Your task to perform on an android device: turn vacation reply on in the gmail app Image 0: 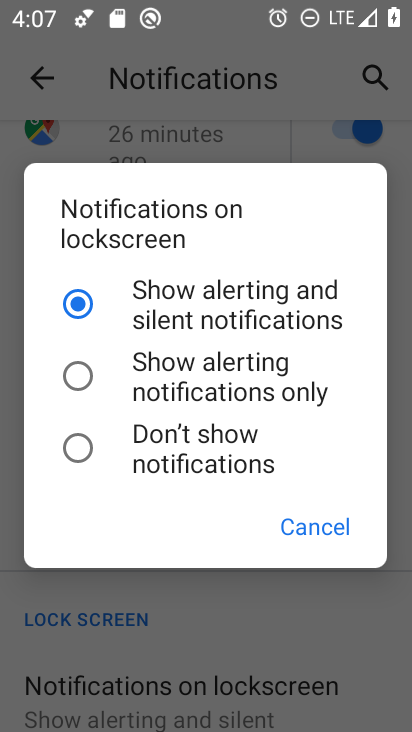
Step 0: press back button
Your task to perform on an android device: turn vacation reply on in the gmail app Image 1: 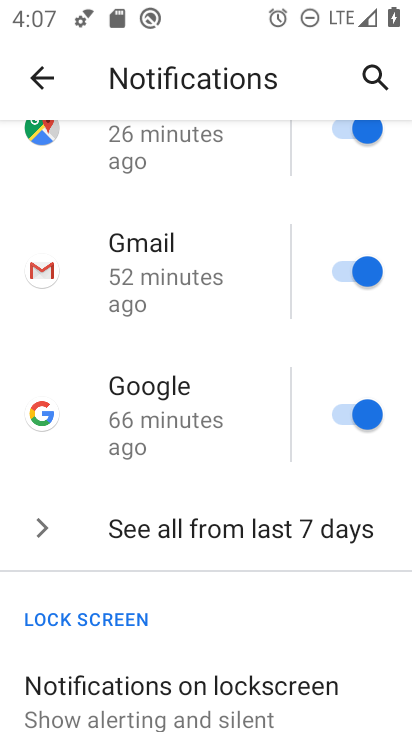
Step 1: press back button
Your task to perform on an android device: turn vacation reply on in the gmail app Image 2: 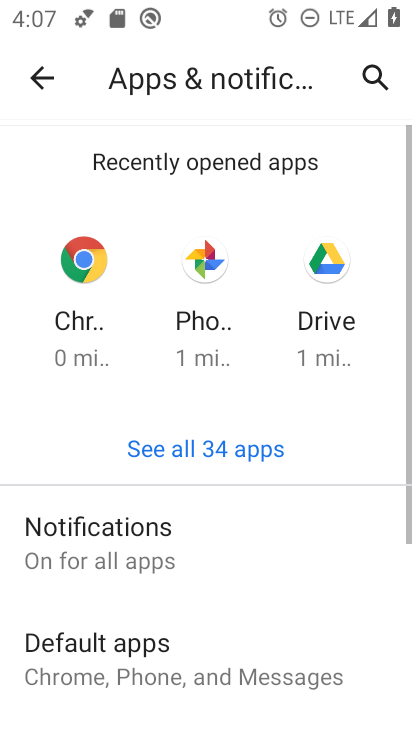
Step 2: press back button
Your task to perform on an android device: turn vacation reply on in the gmail app Image 3: 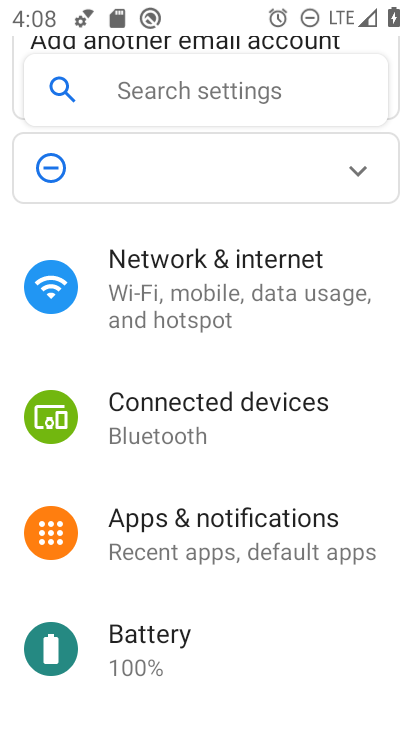
Step 3: press back button
Your task to perform on an android device: turn vacation reply on in the gmail app Image 4: 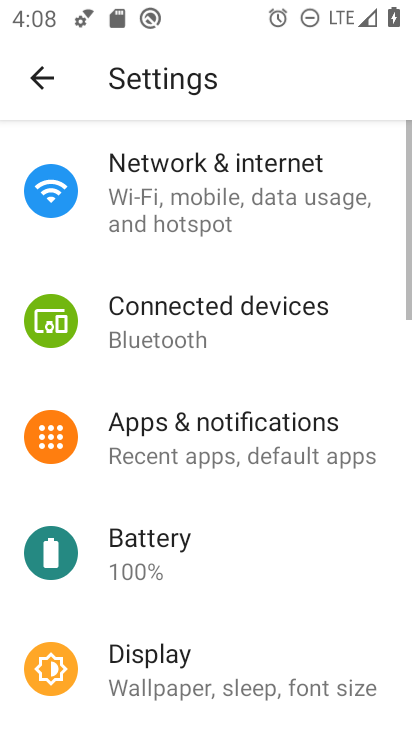
Step 4: press back button
Your task to perform on an android device: turn vacation reply on in the gmail app Image 5: 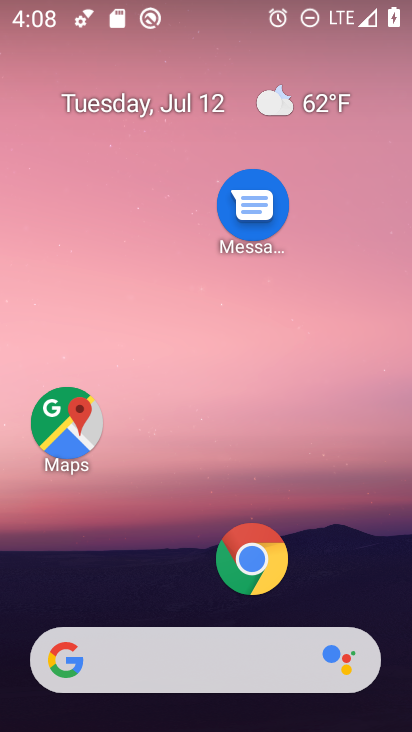
Step 5: press back button
Your task to perform on an android device: turn vacation reply on in the gmail app Image 6: 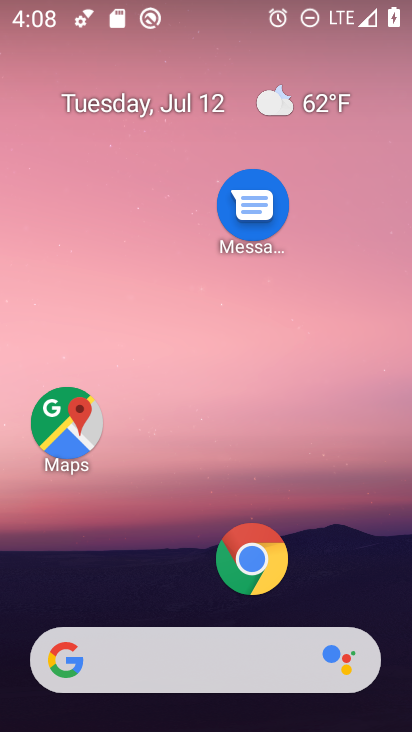
Step 6: drag from (139, 600) to (206, 7)
Your task to perform on an android device: turn vacation reply on in the gmail app Image 7: 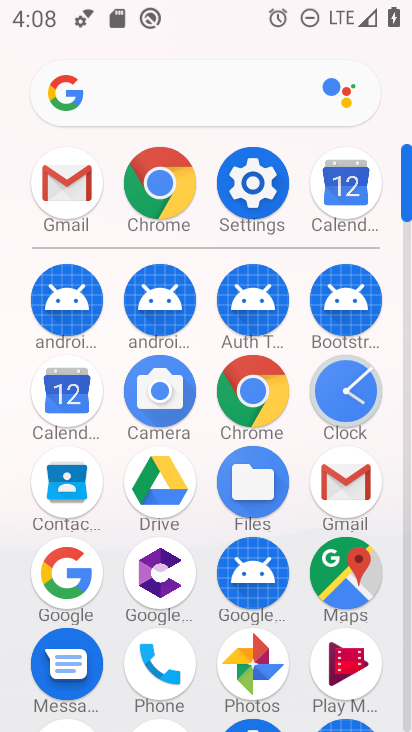
Step 7: click (66, 176)
Your task to perform on an android device: turn vacation reply on in the gmail app Image 8: 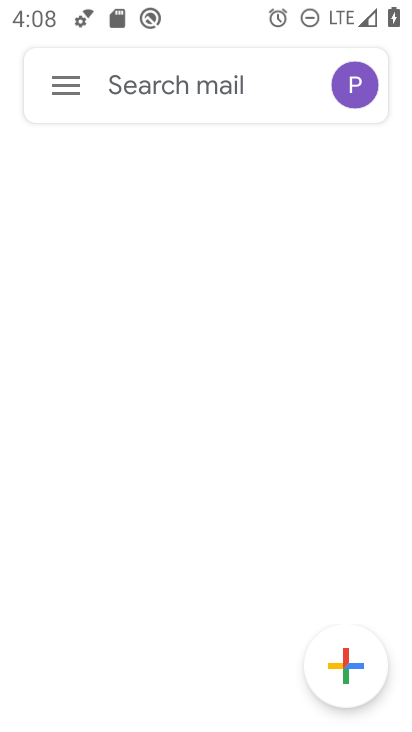
Step 8: click (56, 77)
Your task to perform on an android device: turn vacation reply on in the gmail app Image 9: 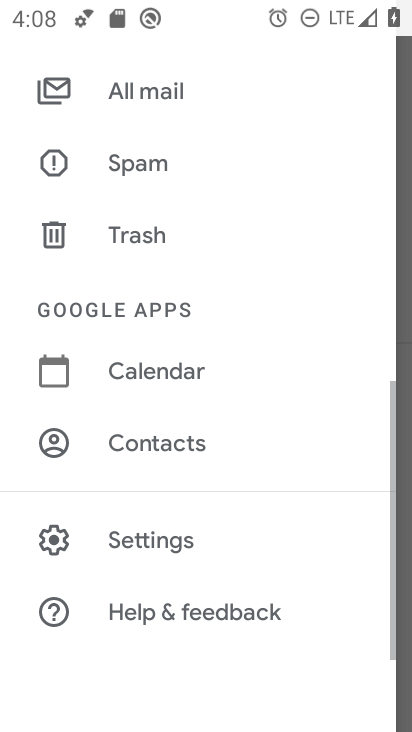
Step 9: click (139, 529)
Your task to perform on an android device: turn vacation reply on in the gmail app Image 10: 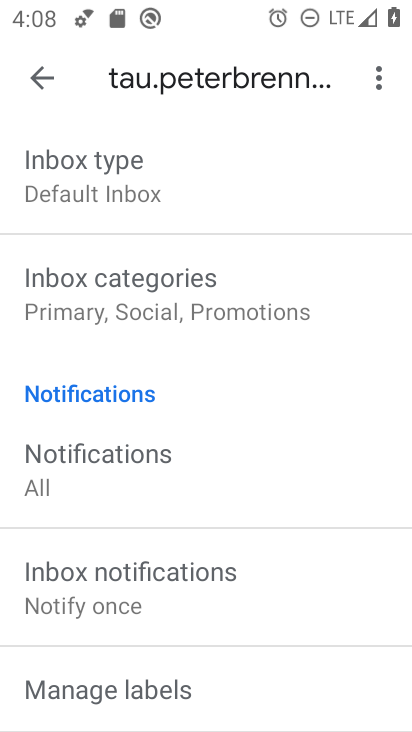
Step 10: drag from (43, 677) to (141, 95)
Your task to perform on an android device: turn vacation reply on in the gmail app Image 11: 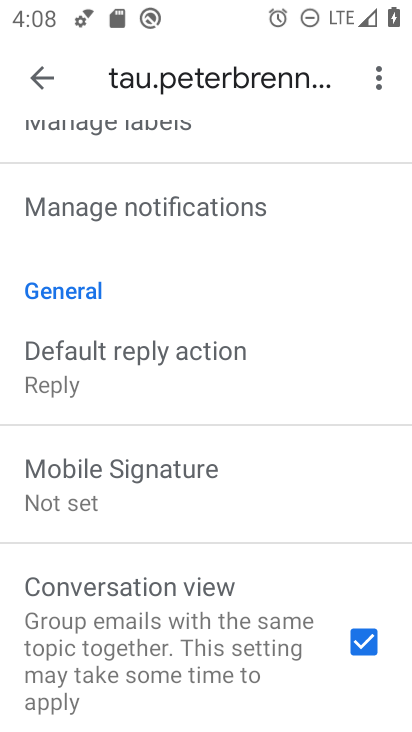
Step 11: drag from (95, 666) to (213, 127)
Your task to perform on an android device: turn vacation reply on in the gmail app Image 12: 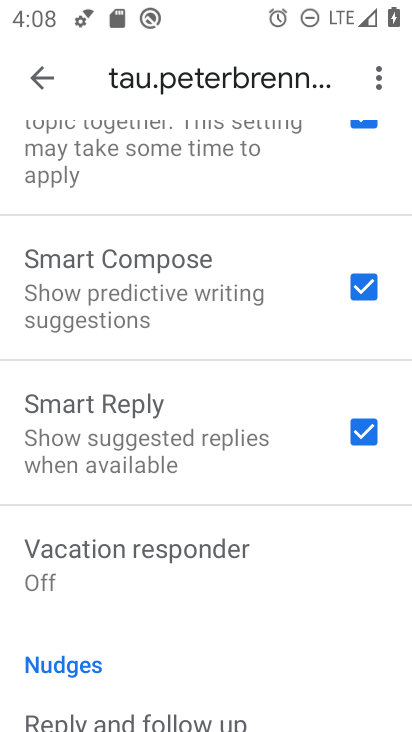
Step 12: drag from (159, 711) to (292, 99)
Your task to perform on an android device: turn vacation reply on in the gmail app Image 13: 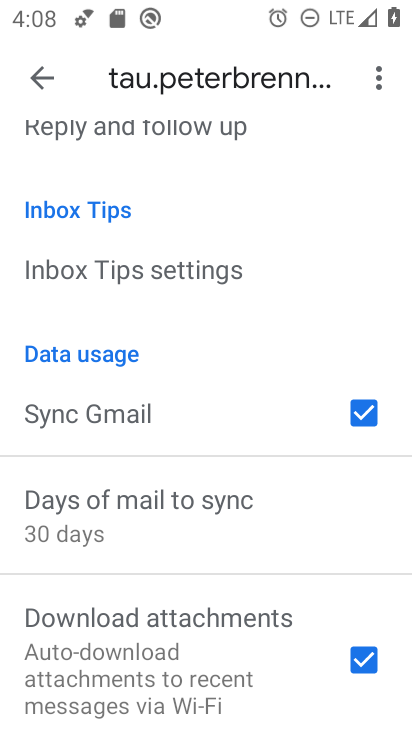
Step 13: drag from (120, 678) to (246, 104)
Your task to perform on an android device: turn vacation reply on in the gmail app Image 14: 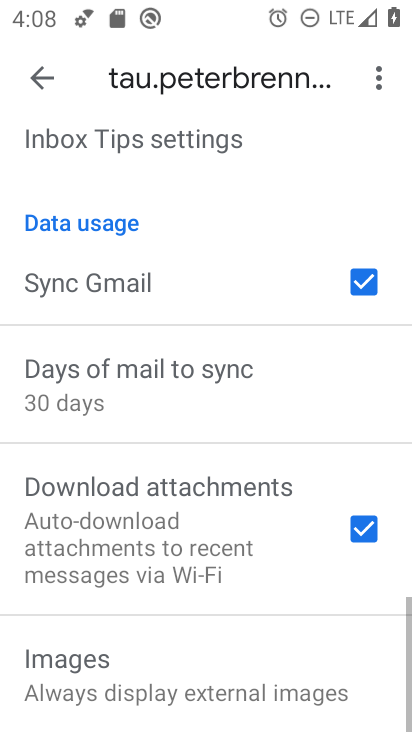
Step 14: drag from (110, 685) to (113, 731)
Your task to perform on an android device: turn vacation reply on in the gmail app Image 15: 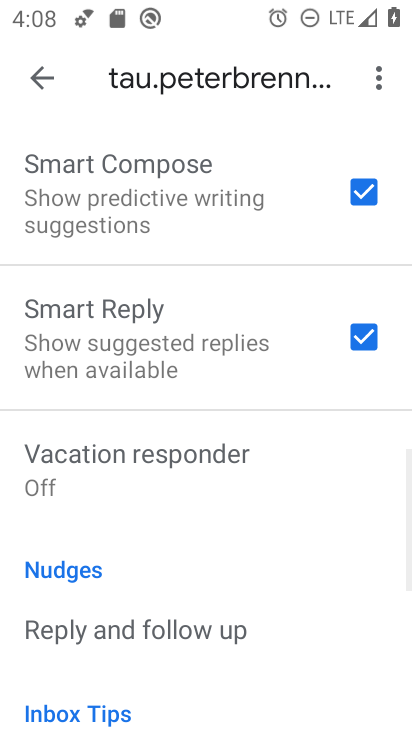
Step 15: click (142, 454)
Your task to perform on an android device: turn vacation reply on in the gmail app Image 16: 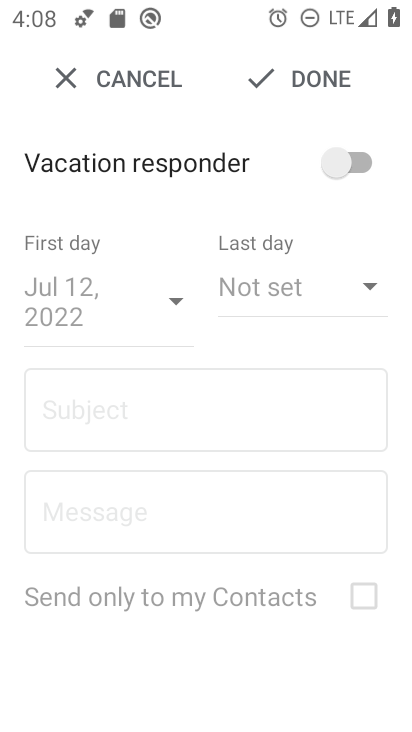
Step 16: click (334, 166)
Your task to perform on an android device: turn vacation reply on in the gmail app Image 17: 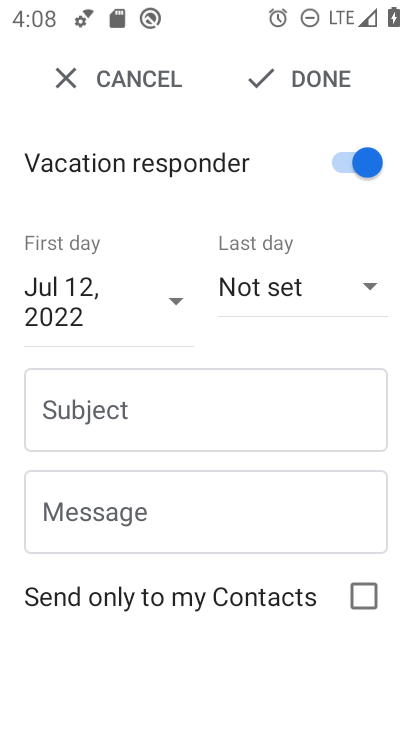
Step 17: task complete